Your task to perform on an android device: Open the map Image 0: 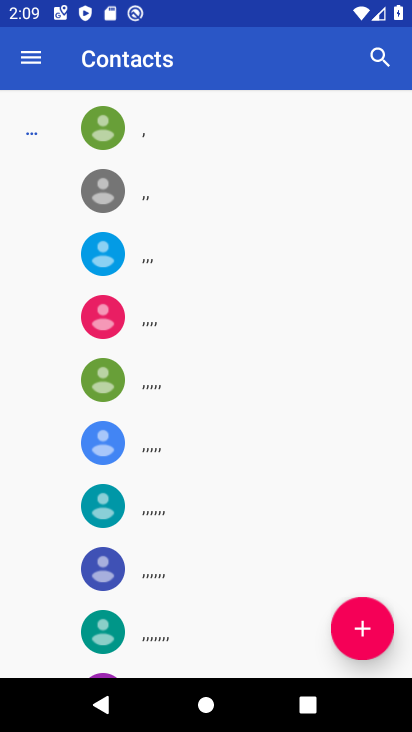
Step 0: press home button
Your task to perform on an android device: Open the map Image 1: 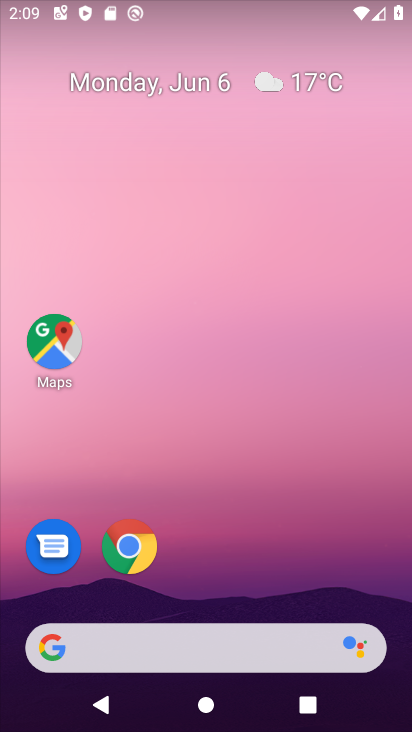
Step 1: click (32, 343)
Your task to perform on an android device: Open the map Image 2: 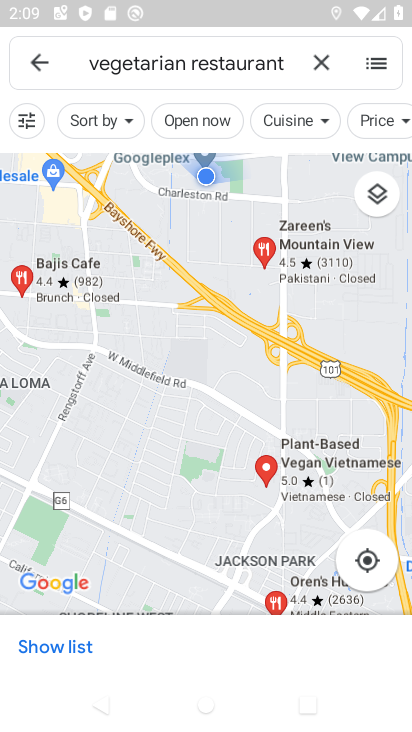
Step 2: task complete